Your task to perform on an android device: turn on data saver in the chrome app Image 0: 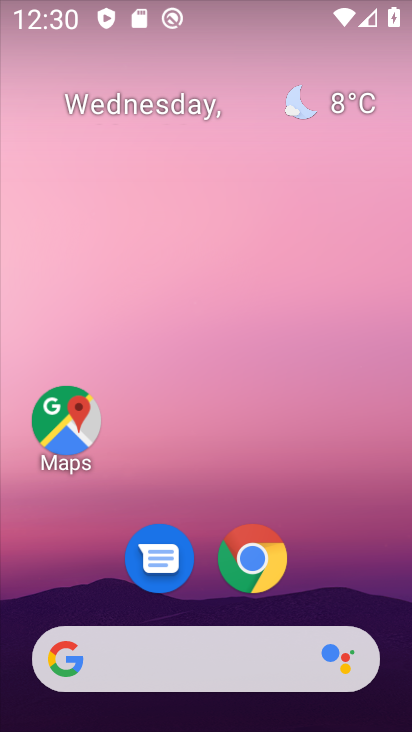
Step 0: drag from (318, 546) to (257, 18)
Your task to perform on an android device: turn on data saver in the chrome app Image 1: 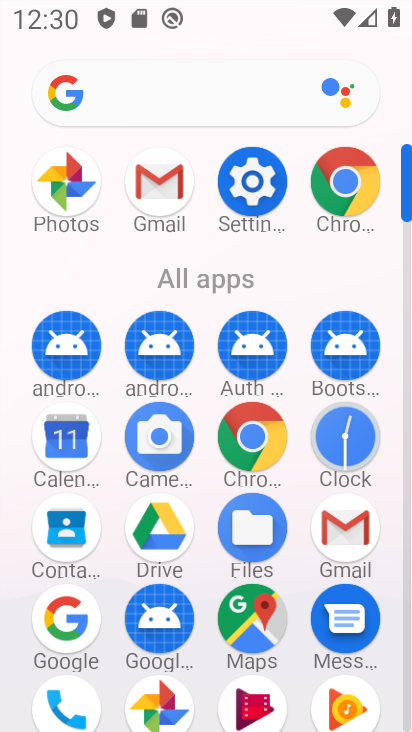
Step 1: drag from (13, 578) to (16, 234)
Your task to perform on an android device: turn on data saver in the chrome app Image 2: 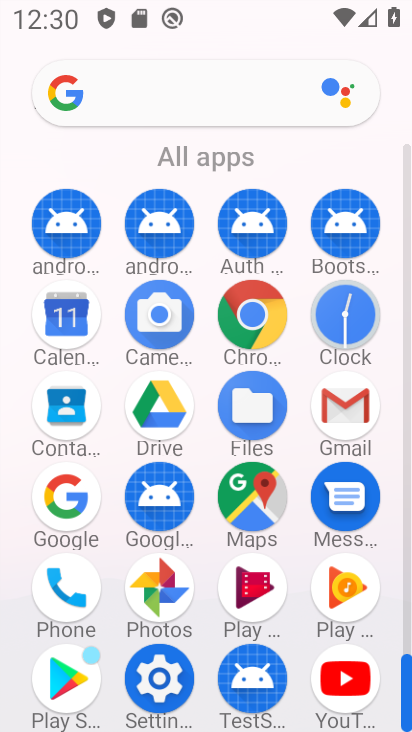
Step 2: click (249, 311)
Your task to perform on an android device: turn on data saver in the chrome app Image 3: 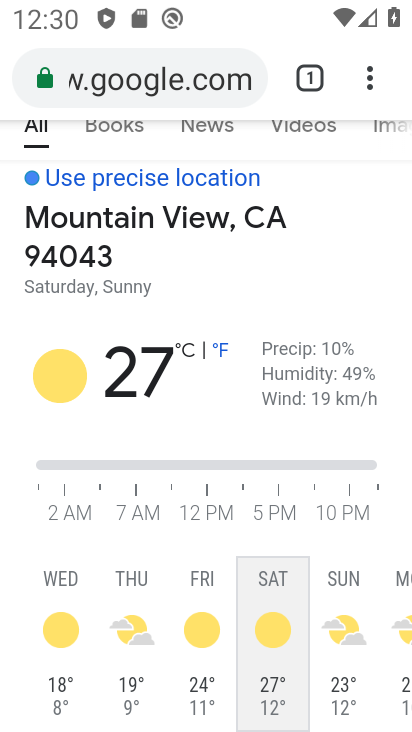
Step 3: drag from (366, 79) to (155, 608)
Your task to perform on an android device: turn on data saver in the chrome app Image 4: 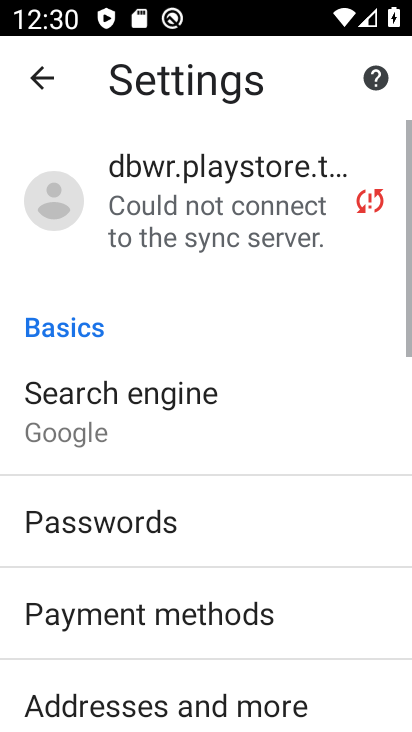
Step 4: drag from (288, 595) to (311, 216)
Your task to perform on an android device: turn on data saver in the chrome app Image 5: 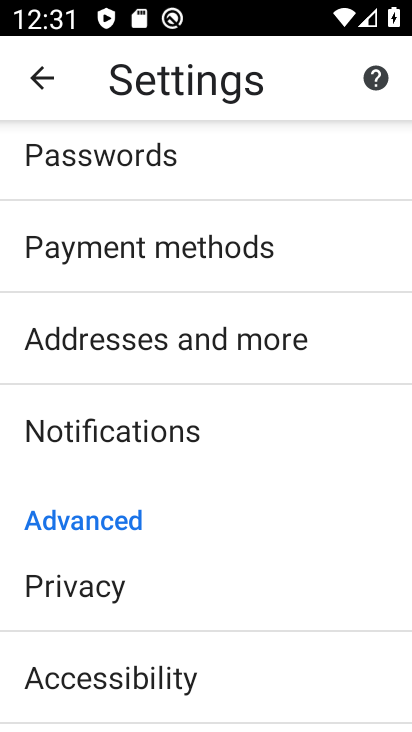
Step 5: drag from (297, 490) to (285, 164)
Your task to perform on an android device: turn on data saver in the chrome app Image 6: 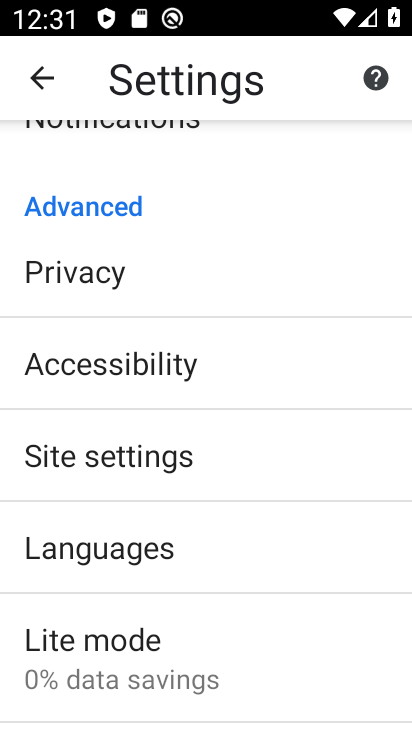
Step 6: drag from (226, 590) to (242, 233)
Your task to perform on an android device: turn on data saver in the chrome app Image 7: 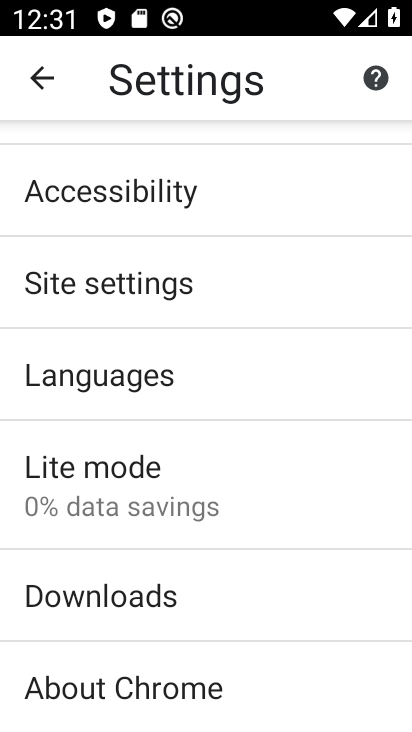
Step 7: click (177, 480)
Your task to perform on an android device: turn on data saver in the chrome app Image 8: 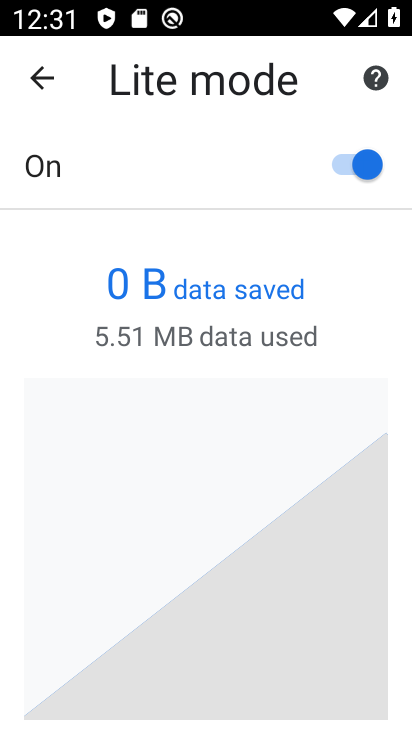
Step 8: task complete